Your task to perform on an android device: check out phone information Image 0: 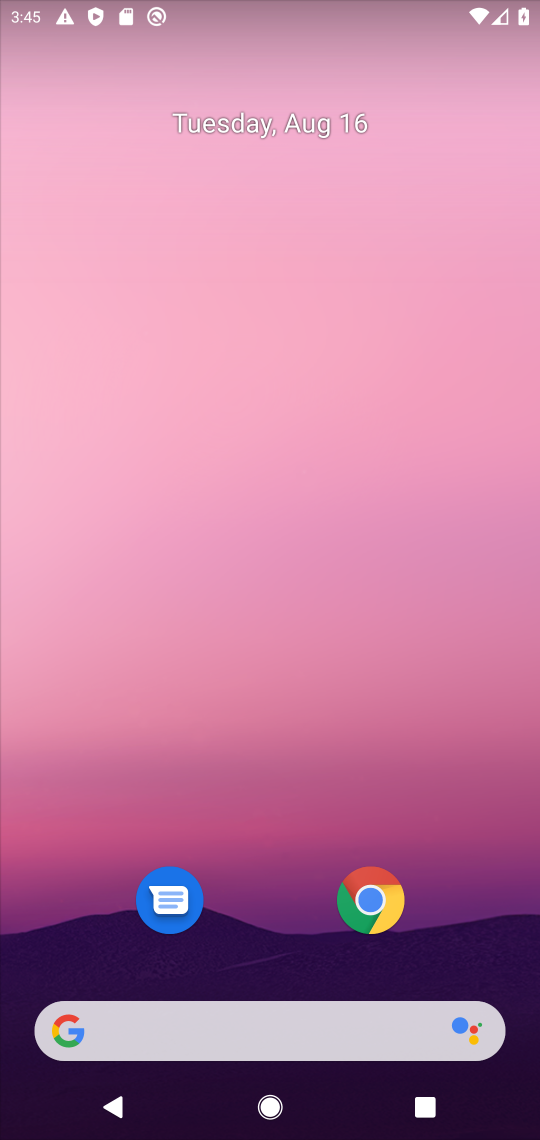
Step 0: drag from (218, 772) to (236, 12)
Your task to perform on an android device: check out phone information Image 1: 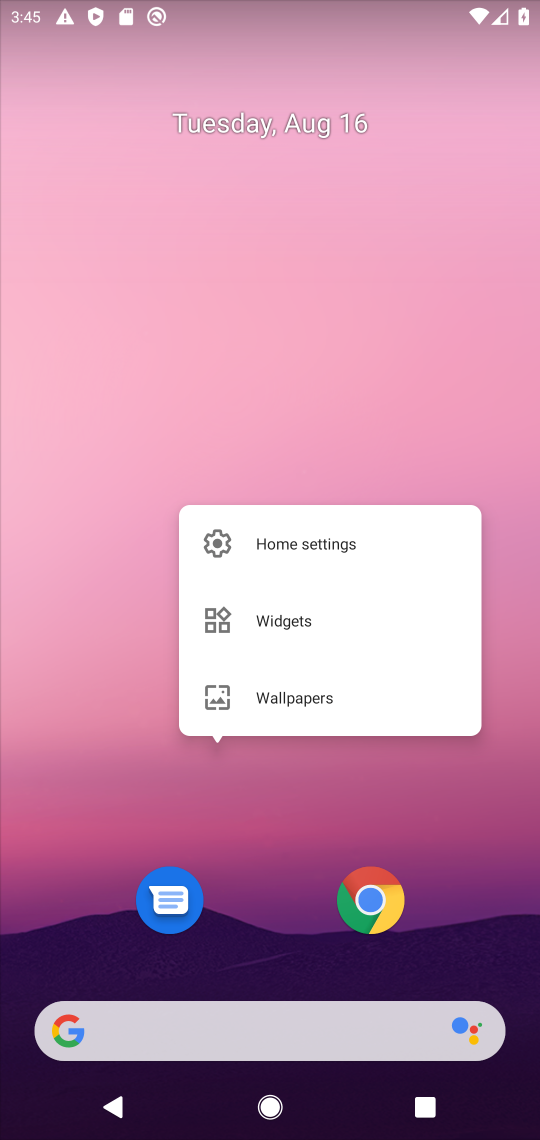
Step 1: click (253, 841)
Your task to perform on an android device: check out phone information Image 2: 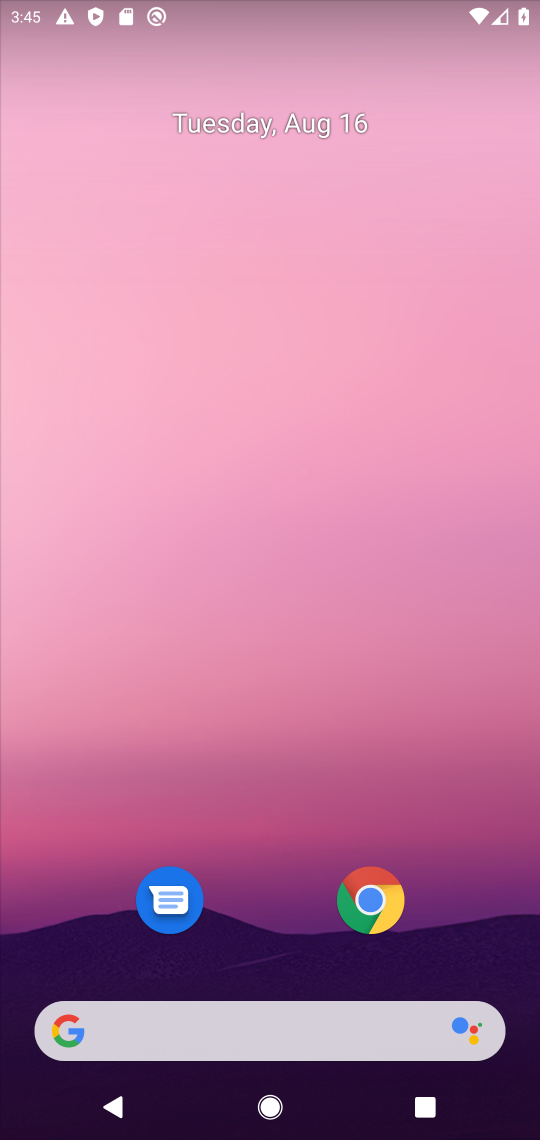
Step 2: drag from (258, 806) to (347, 46)
Your task to perform on an android device: check out phone information Image 3: 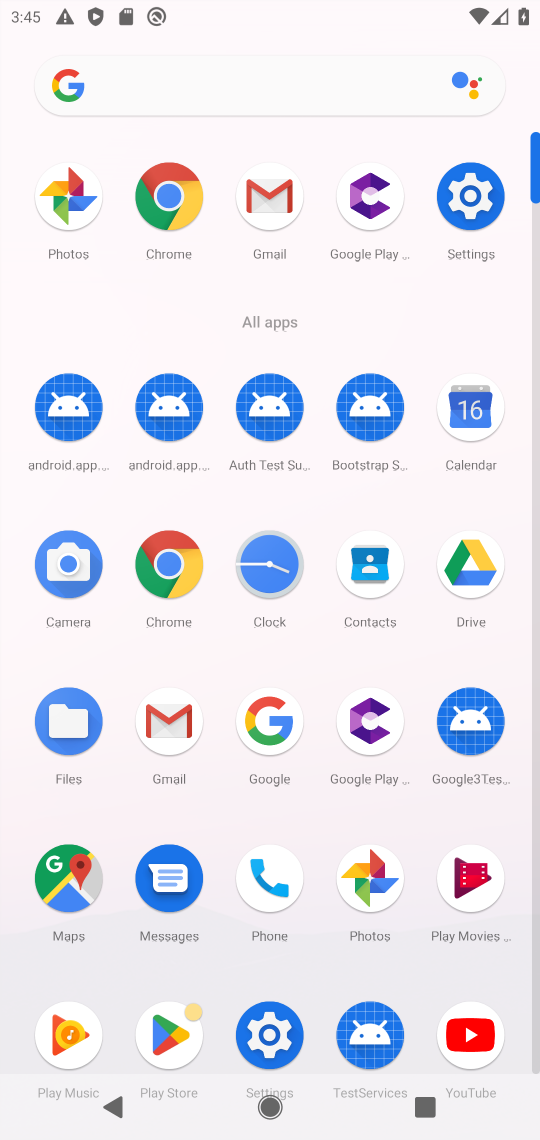
Step 3: click (477, 225)
Your task to perform on an android device: check out phone information Image 4: 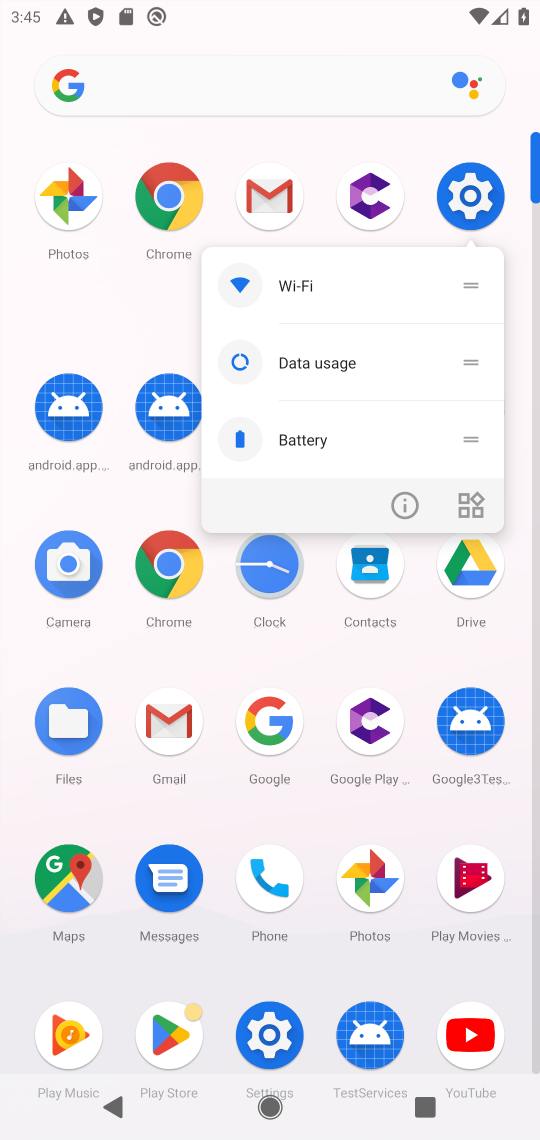
Step 4: click (458, 172)
Your task to perform on an android device: check out phone information Image 5: 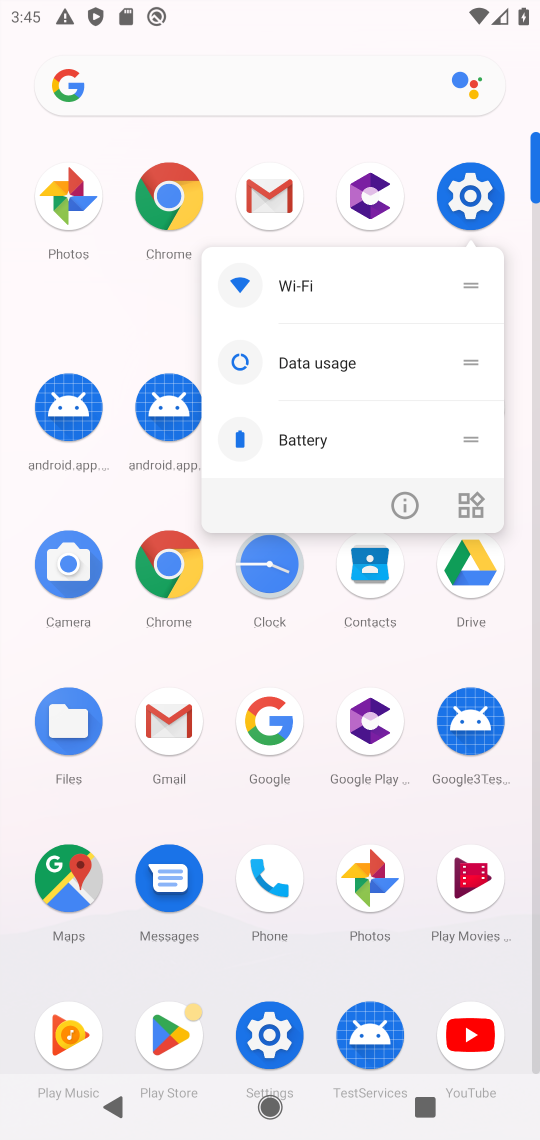
Step 5: click (491, 195)
Your task to perform on an android device: check out phone information Image 6: 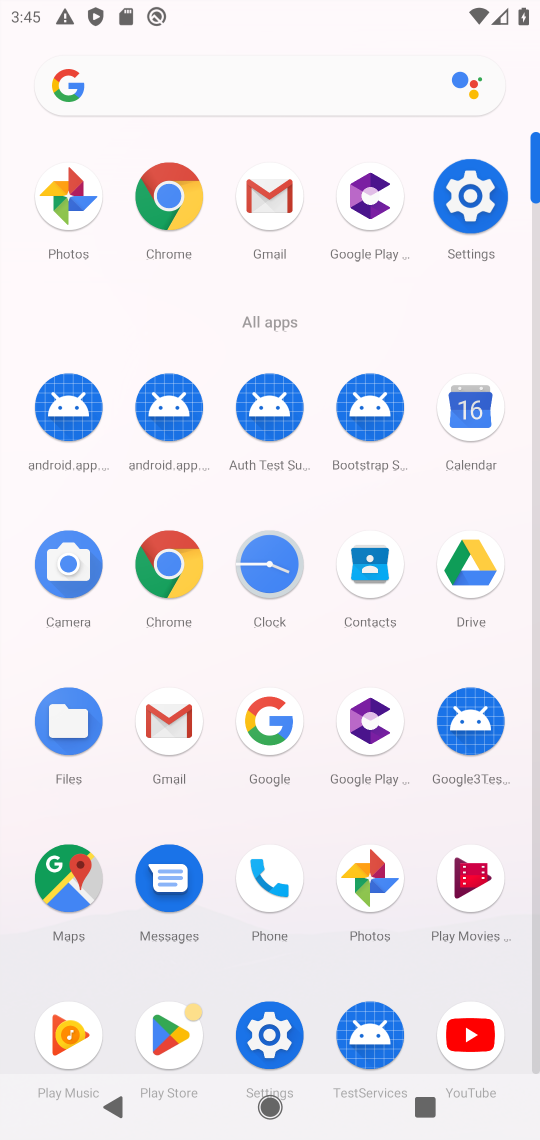
Step 6: click (480, 196)
Your task to perform on an android device: check out phone information Image 7: 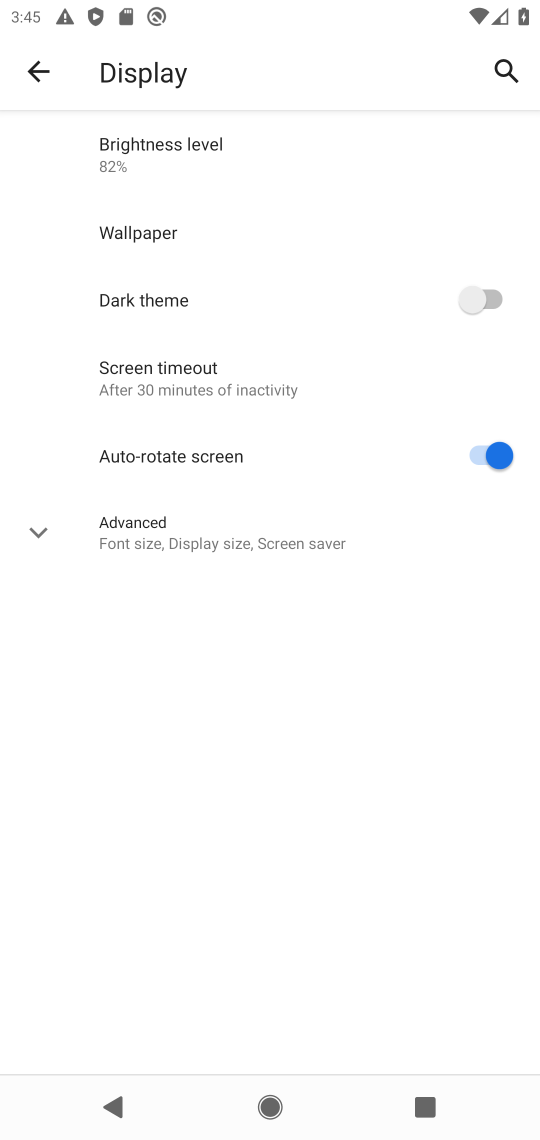
Step 7: drag from (272, 587) to (251, 6)
Your task to perform on an android device: check out phone information Image 8: 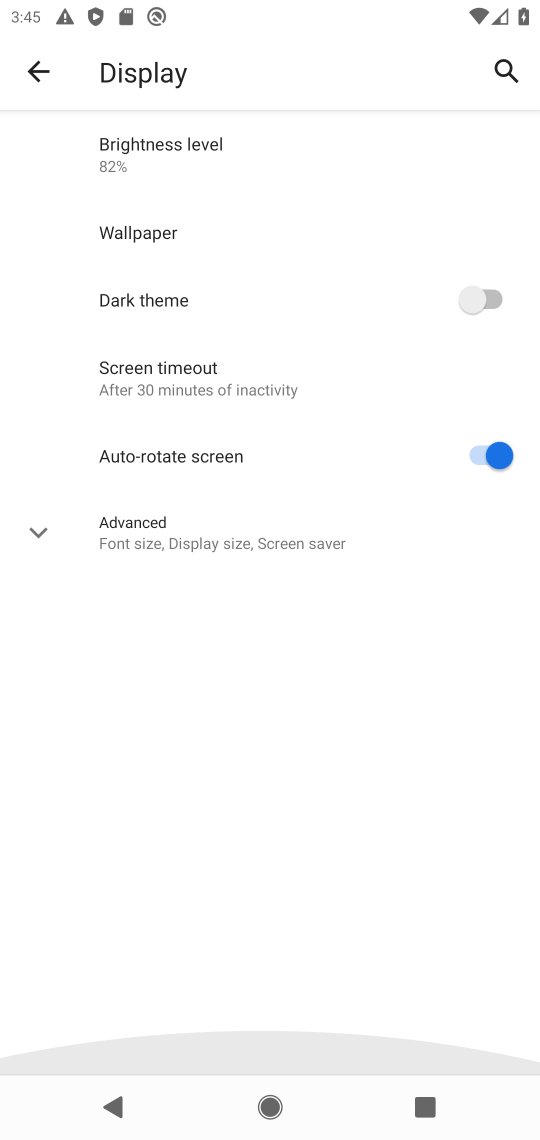
Step 8: click (35, 65)
Your task to perform on an android device: check out phone information Image 9: 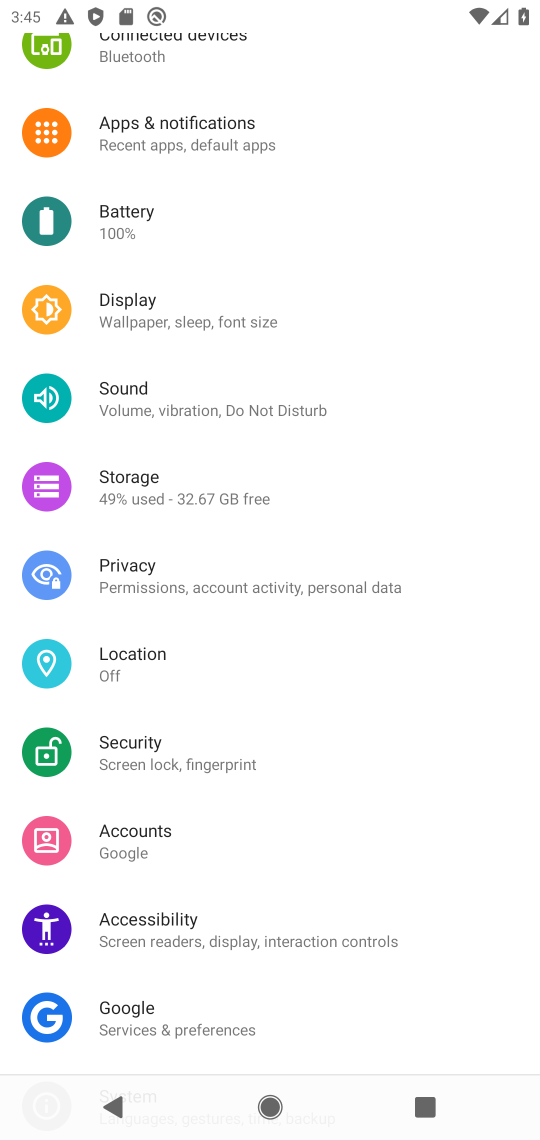
Step 9: drag from (299, 981) to (272, 51)
Your task to perform on an android device: check out phone information Image 10: 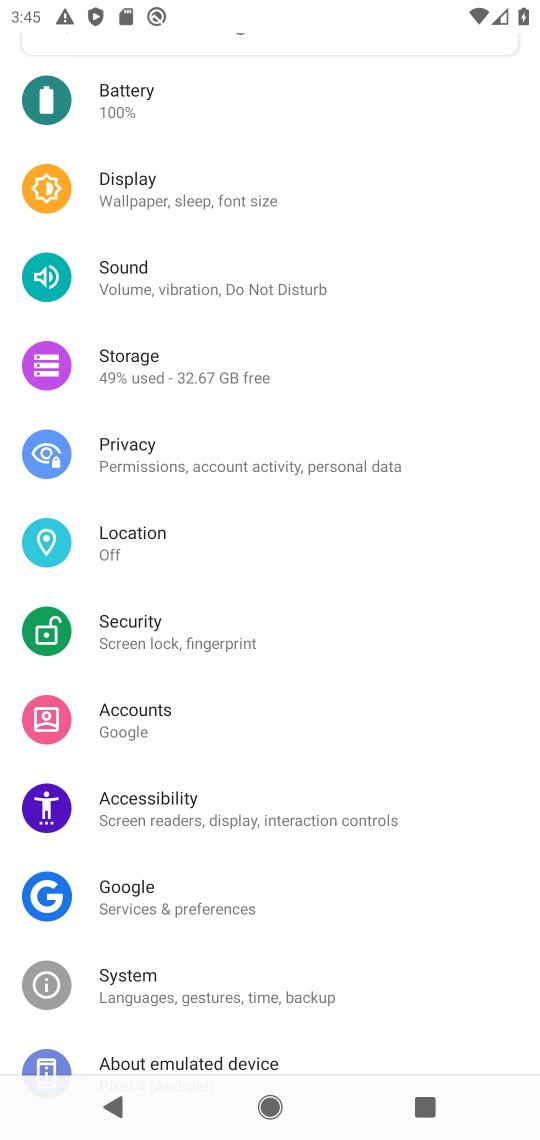
Step 10: drag from (275, 893) to (284, 130)
Your task to perform on an android device: check out phone information Image 11: 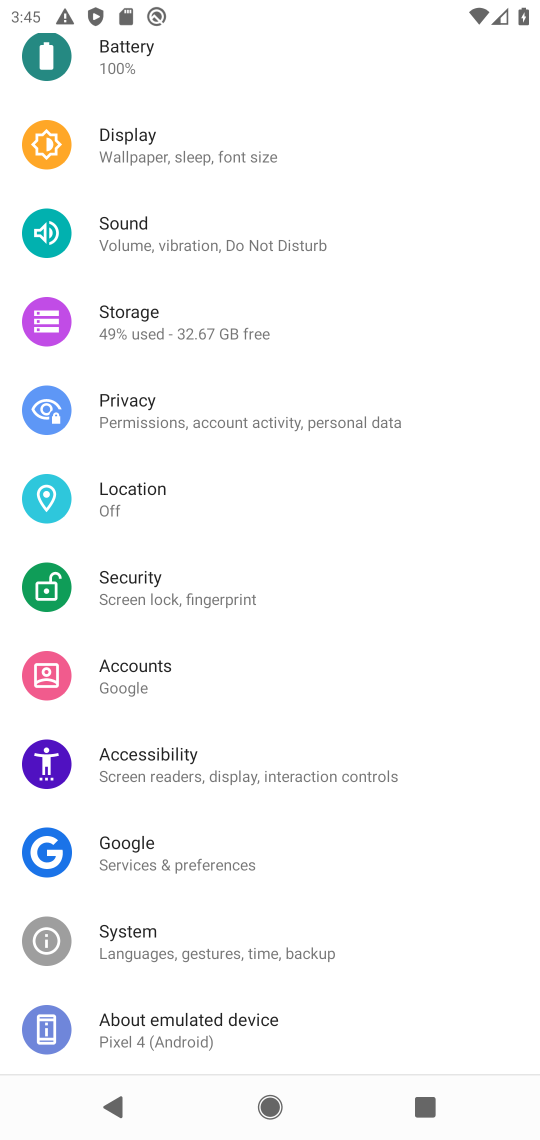
Step 11: click (224, 1016)
Your task to perform on an android device: check out phone information Image 12: 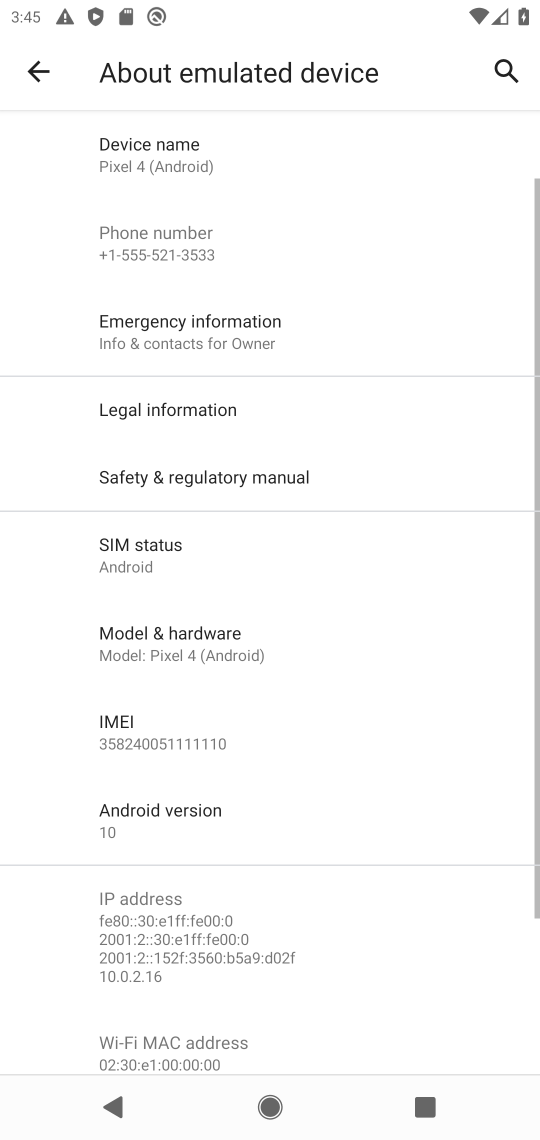
Step 12: task complete